Your task to perform on an android device: find snoozed emails in the gmail app Image 0: 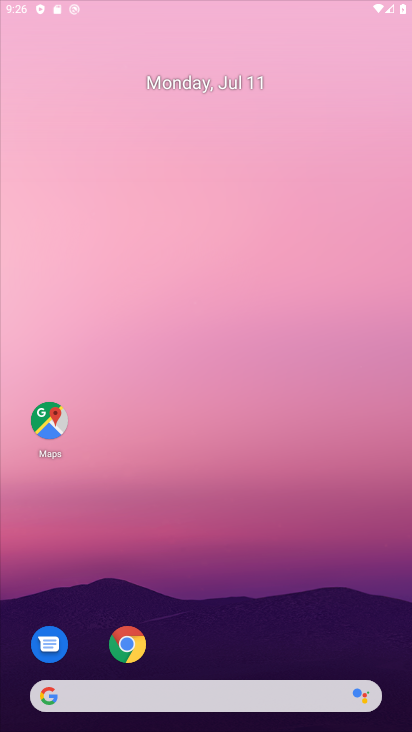
Step 0: press home button
Your task to perform on an android device: find snoozed emails in the gmail app Image 1: 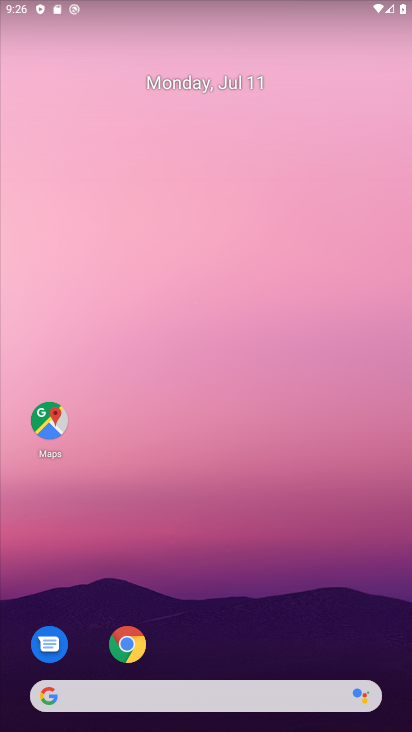
Step 1: drag from (215, 662) to (233, 63)
Your task to perform on an android device: find snoozed emails in the gmail app Image 2: 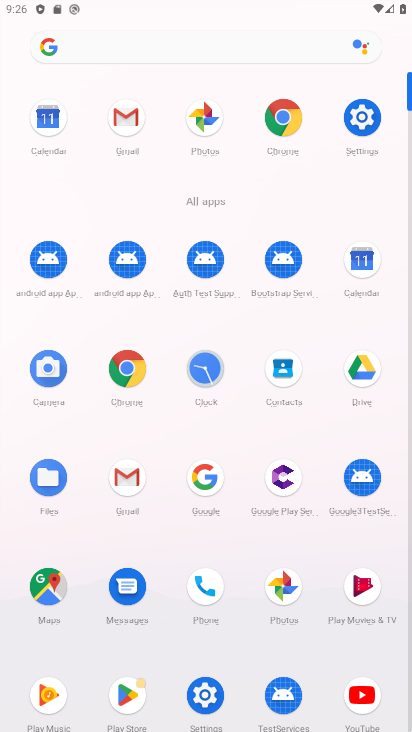
Step 2: click (123, 110)
Your task to perform on an android device: find snoozed emails in the gmail app Image 3: 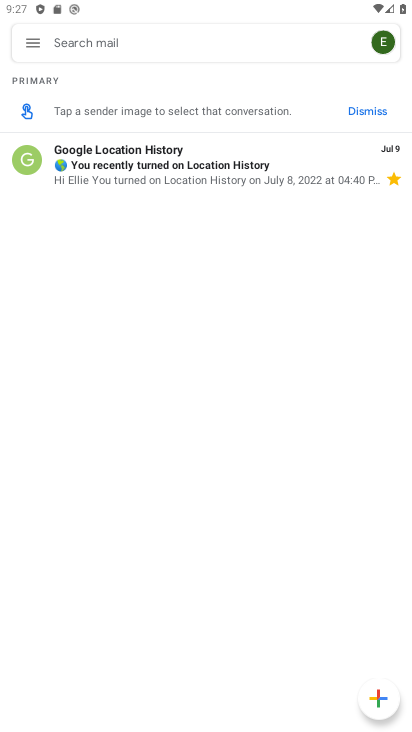
Step 3: click (26, 37)
Your task to perform on an android device: find snoozed emails in the gmail app Image 4: 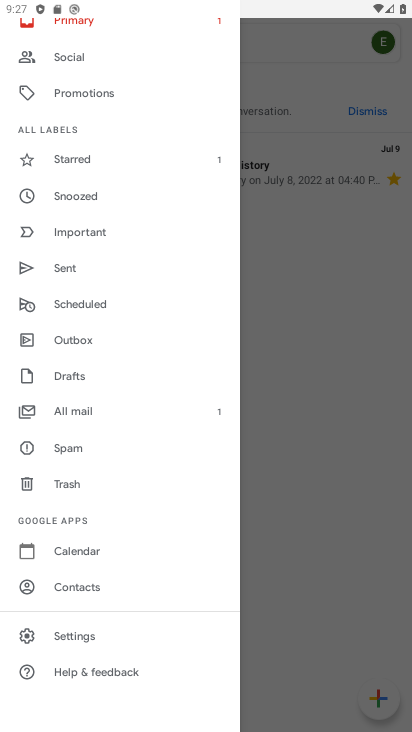
Step 4: click (94, 189)
Your task to perform on an android device: find snoozed emails in the gmail app Image 5: 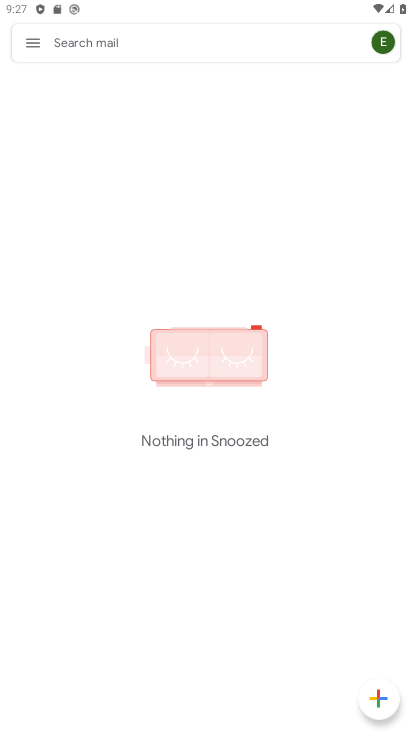
Step 5: task complete